Your task to perform on an android device: stop showing notifications on the lock screen Image 0: 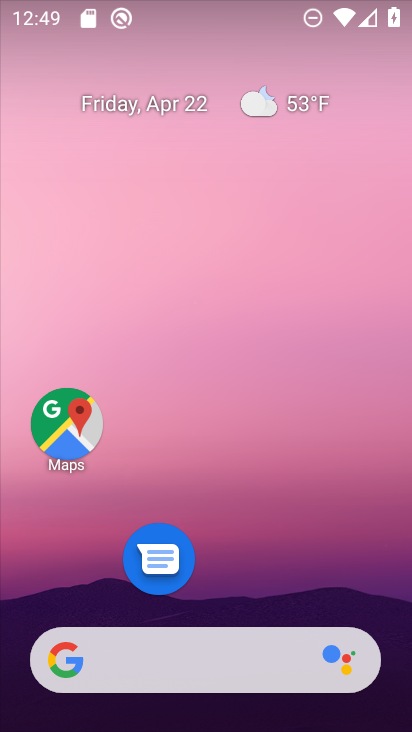
Step 0: drag from (228, 717) to (201, 109)
Your task to perform on an android device: stop showing notifications on the lock screen Image 1: 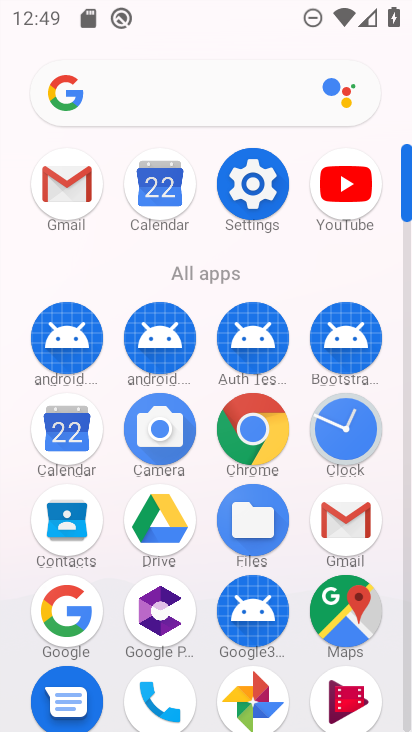
Step 1: click (254, 194)
Your task to perform on an android device: stop showing notifications on the lock screen Image 2: 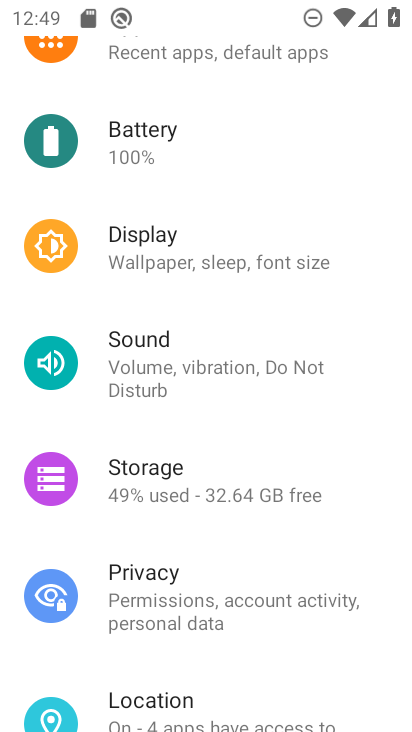
Step 2: drag from (186, 135) to (205, 482)
Your task to perform on an android device: stop showing notifications on the lock screen Image 3: 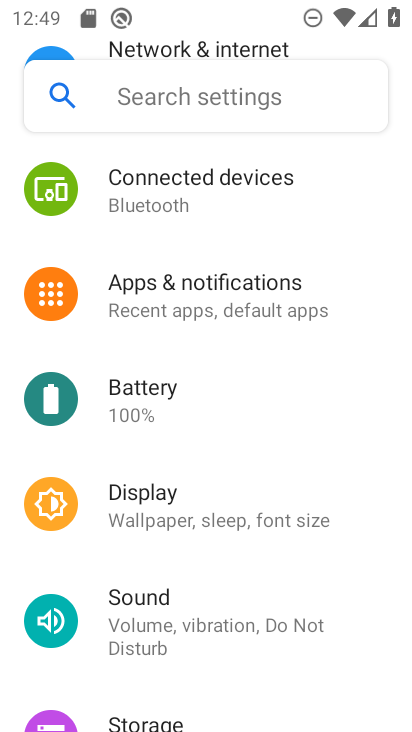
Step 3: click (199, 302)
Your task to perform on an android device: stop showing notifications on the lock screen Image 4: 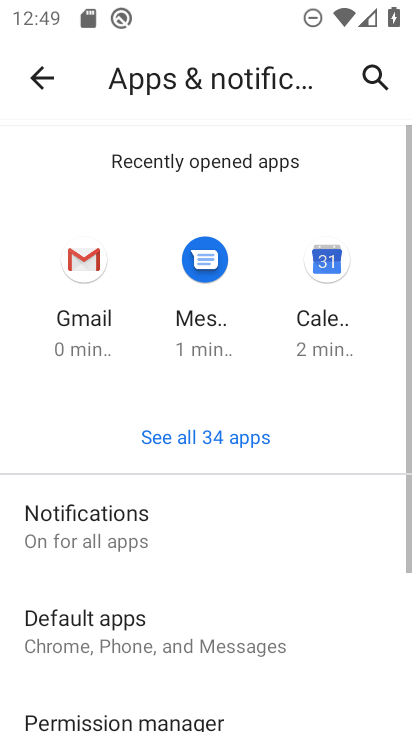
Step 4: click (122, 541)
Your task to perform on an android device: stop showing notifications on the lock screen Image 5: 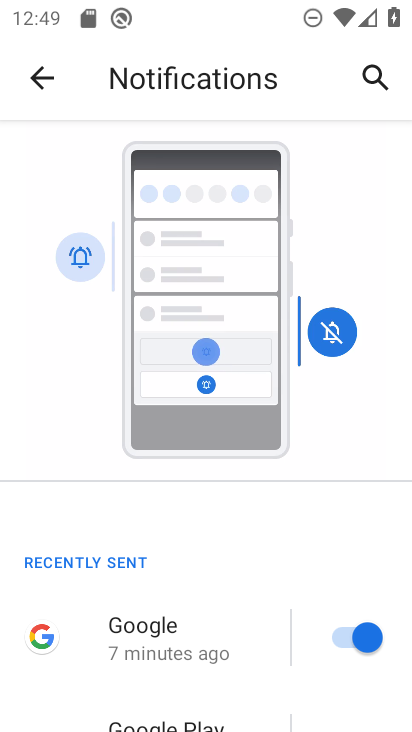
Step 5: drag from (177, 691) to (185, 179)
Your task to perform on an android device: stop showing notifications on the lock screen Image 6: 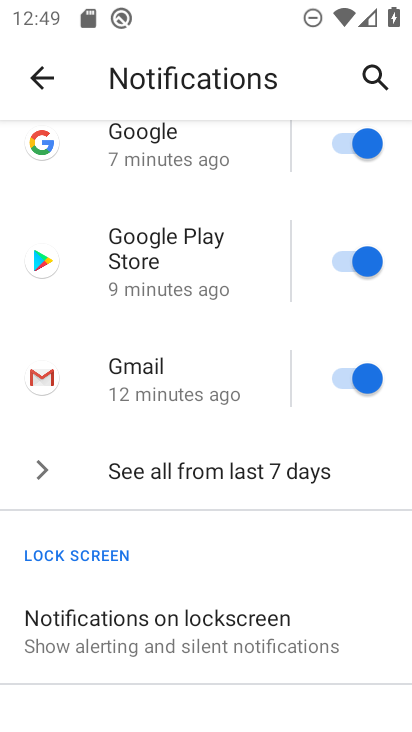
Step 6: drag from (193, 628) to (190, 289)
Your task to perform on an android device: stop showing notifications on the lock screen Image 7: 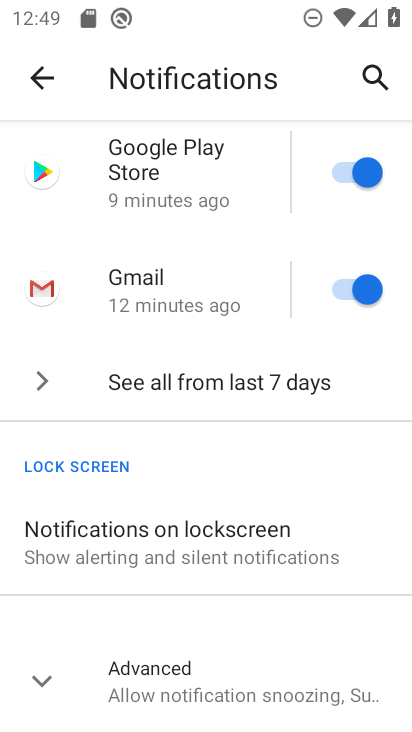
Step 7: click (114, 547)
Your task to perform on an android device: stop showing notifications on the lock screen Image 8: 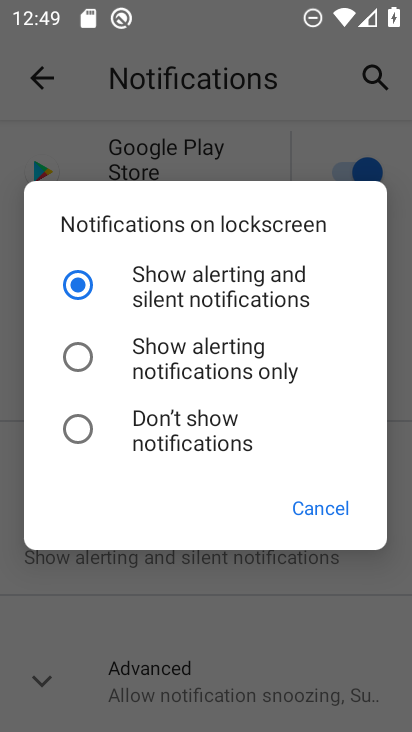
Step 8: click (78, 429)
Your task to perform on an android device: stop showing notifications on the lock screen Image 9: 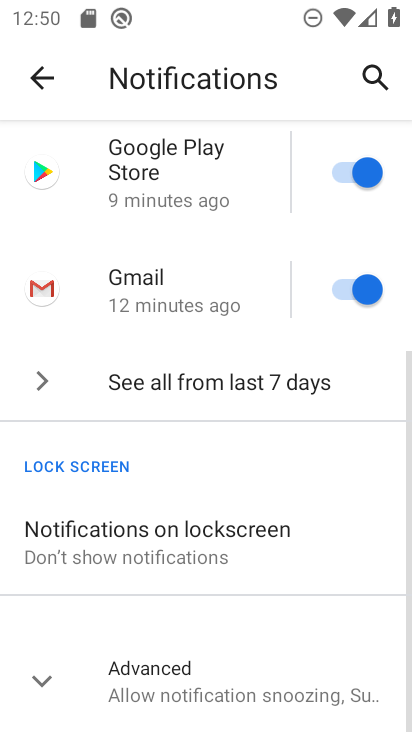
Step 9: task complete